Your task to perform on an android device: turn off sleep mode Image 0: 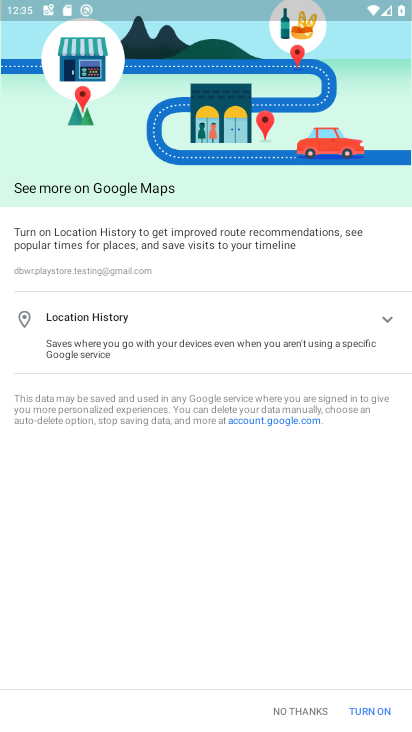
Step 0: press home button
Your task to perform on an android device: turn off sleep mode Image 1: 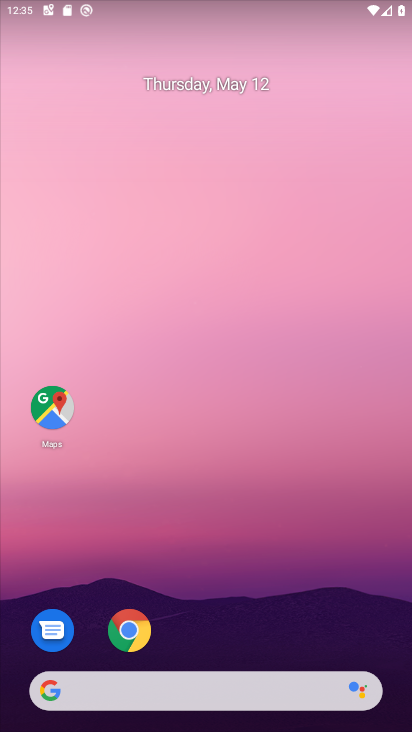
Step 1: click (215, 13)
Your task to perform on an android device: turn off sleep mode Image 2: 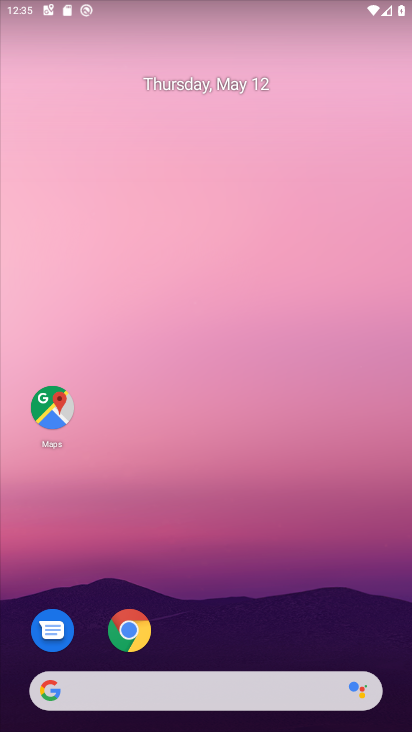
Step 2: drag from (190, 568) to (248, 119)
Your task to perform on an android device: turn off sleep mode Image 3: 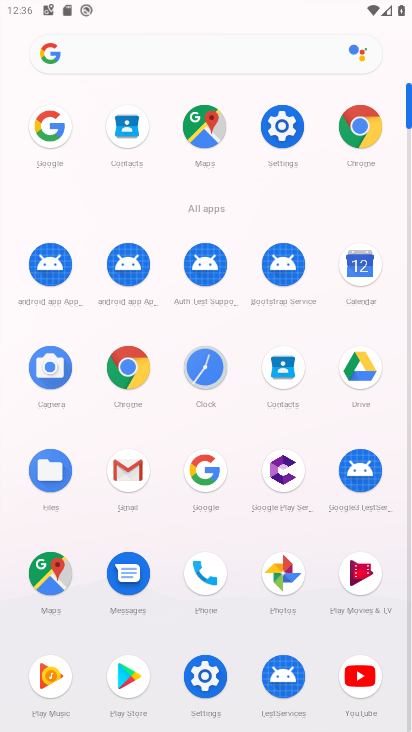
Step 3: click (284, 129)
Your task to perform on an android device: turn off sleep mode Image 4: 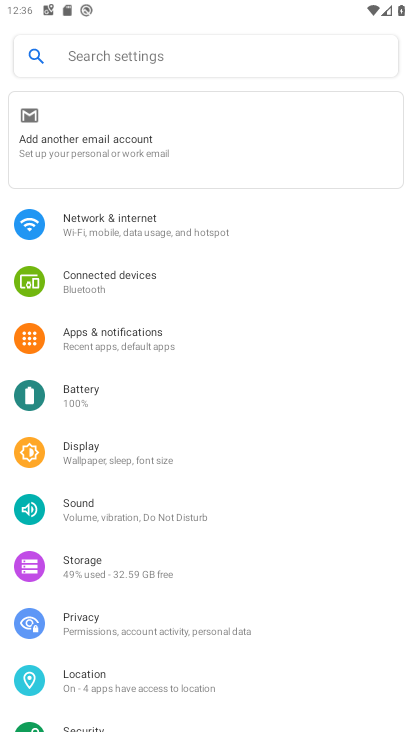
Step 4: task complete